Your task to perform on an android device: Open Google Chrome and click the shortcut for Amazon.com Image 0: 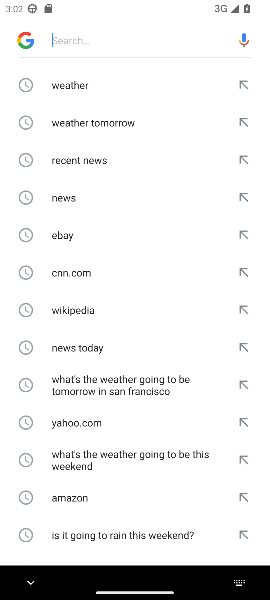
Step 0: press back button
Your task to perform on an android device: Open Google Chrome and click the shortcut for Amazon.com Image 1: 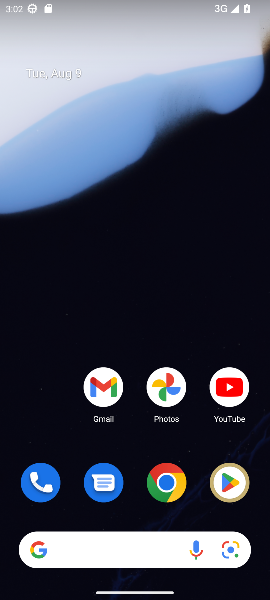
Step 1: click (169, 481)
Your task to perform on an android device: Open Google Chrome and click the shortcut for Amazon.com Image 2: 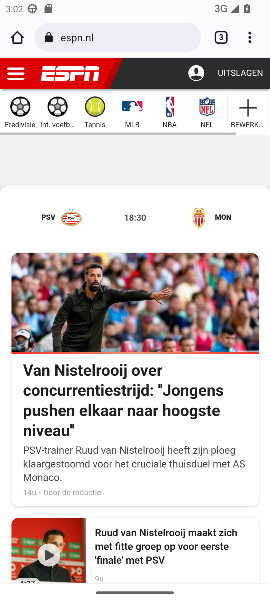
Step 2: click (212, 40)
Your task to perform on an android device: Open Google Chrome and click the shortcut for Amazon.com Image 3: 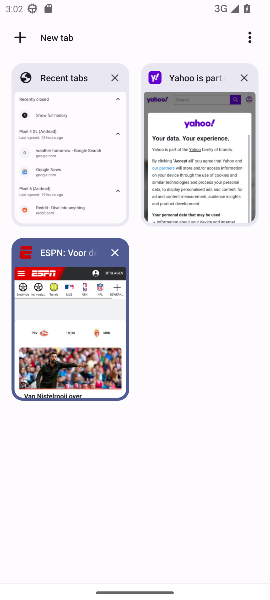
Step 3: click (20, 31)
Your task to perform on an android device: Open Google Chrome and click the shortcut for Amazon.com Image 4: 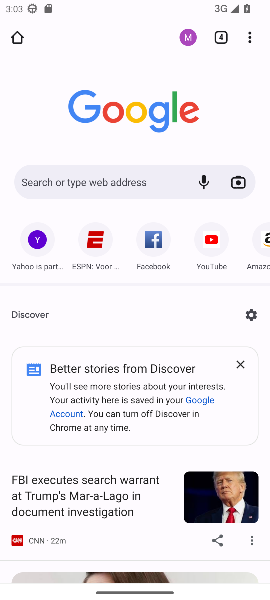
Step 4: click (268, 240)
Your task to perform on an android device: Open Google Chrome and click the shortcut for Amazon.com Image 5: 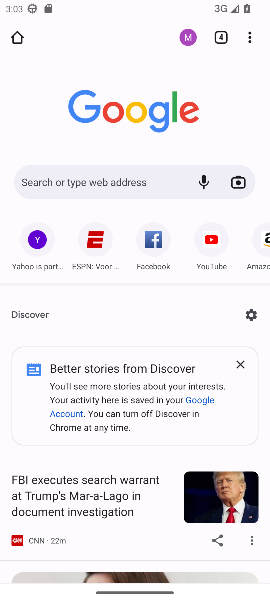
Step 5: click (263, 239)
Your task to perform on an android device: Open Google Chrome and click the shortcut for Amazon.com Image 6: 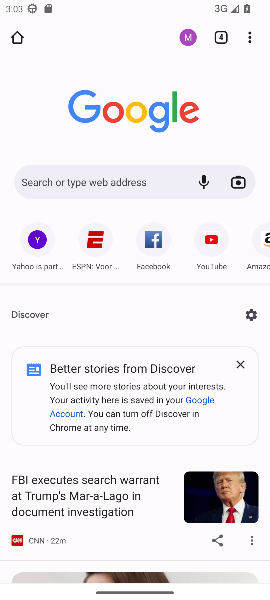
Step 6: click (261, 235)
Your task to perform on an android device: Open Google Chrome and click the shortcut for Amazon.com Image 7: 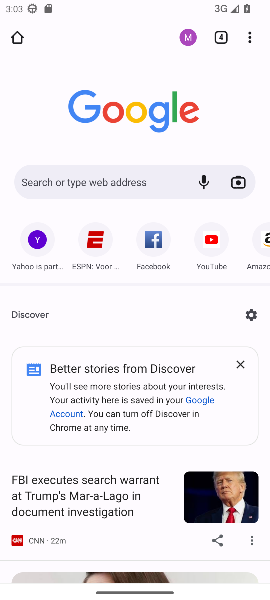
Step 7: drag from (190, 233) to (46, 220)
Your task to perform on an android device: Open Google Chrome and click the shortcut for Amazon.com Image 8: 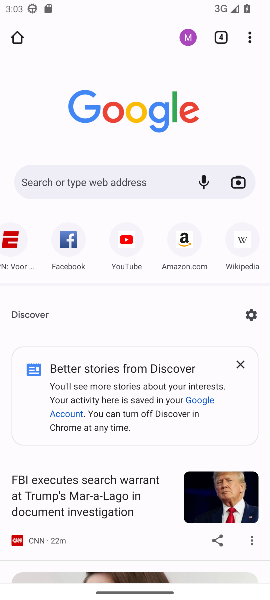
Step 8: click (184, 235)
Your task to perform on an android device: Open Google Chrome and click the shortcut for Amazon.com Image 9: 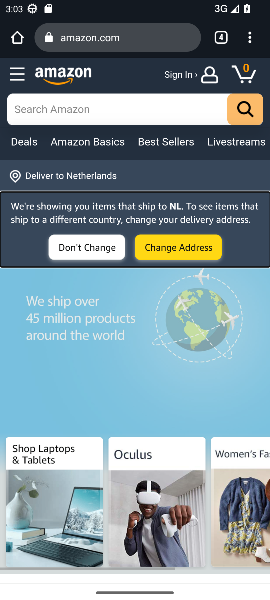
Step 9: task complete